Your task to perform on an android device: Turn off the flashlight Image 0: 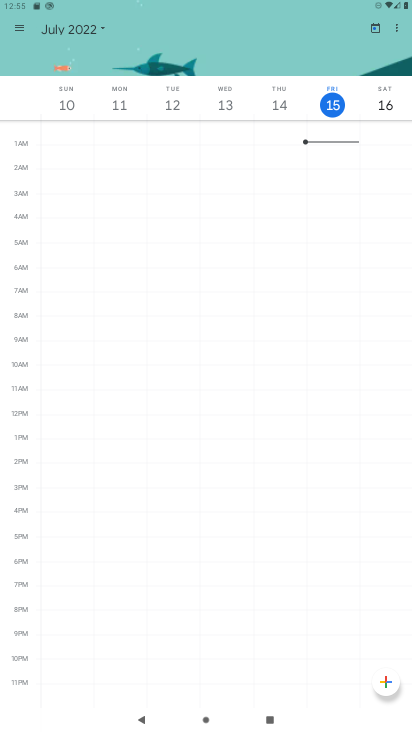
Step 0: press home button
Your task to perform on an android device: Turn off the flashlight Image 1: 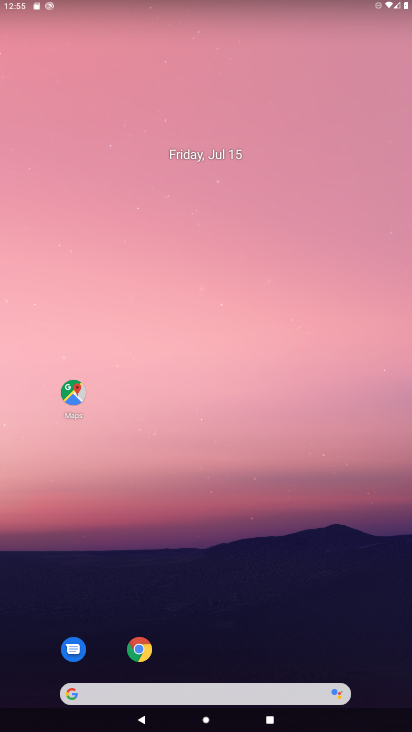
Step 1: drag from (259, 621) to (239, 17)
Your task to perform on an android device: Turn off the flashlight Image 2: 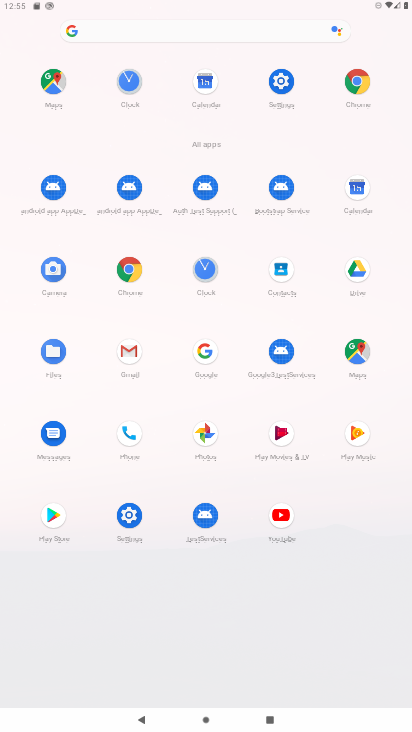
Step 2: click (274, 77)
Your task to perform on an android device: Turn off the flashlight Image 3: 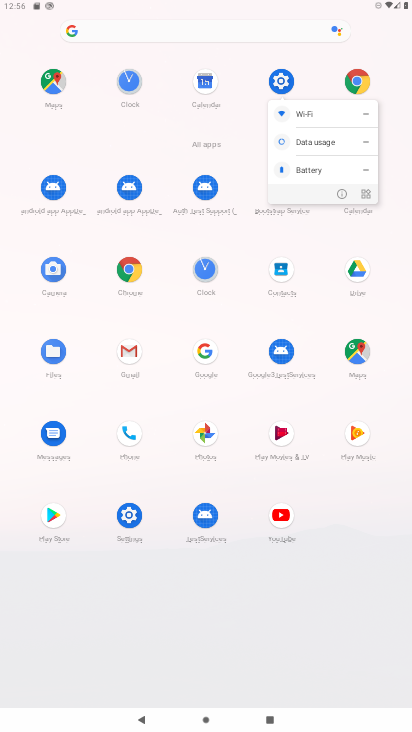
Step 3: click (274, 77)
Your task to perform on an android device: Turn off the flashlight Image 4: 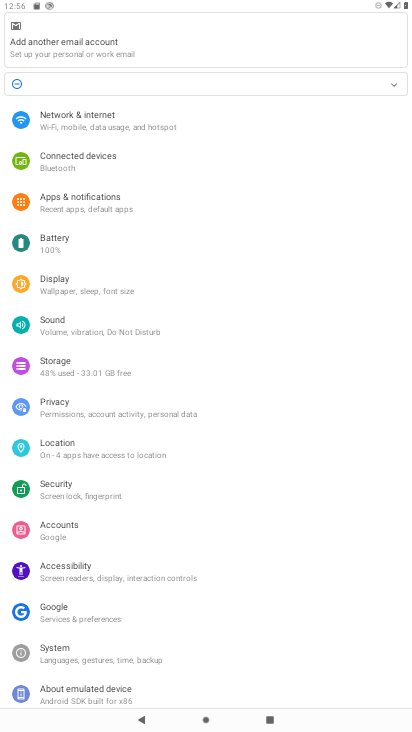
Step 4: task complete